Your task to perform on an android device: toggle show notifications on the lock screen Image 0: 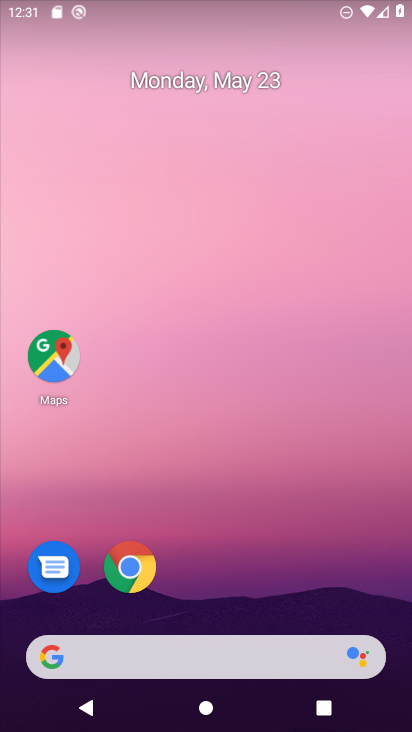
Step 0: drag from (190, 610) to (222, 261)
Your task to perform on an android device: toggle show notifications on the lock screen Image 1: 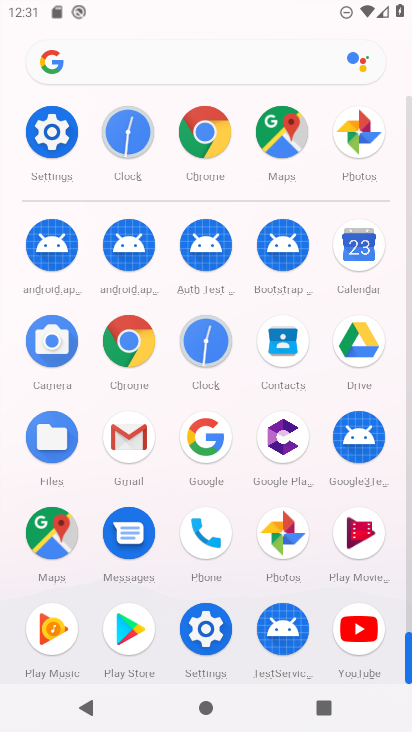
Step 1: click (199, 657)
Your task to perform on an android device: toggle show notifications on the lock screen Image 2: 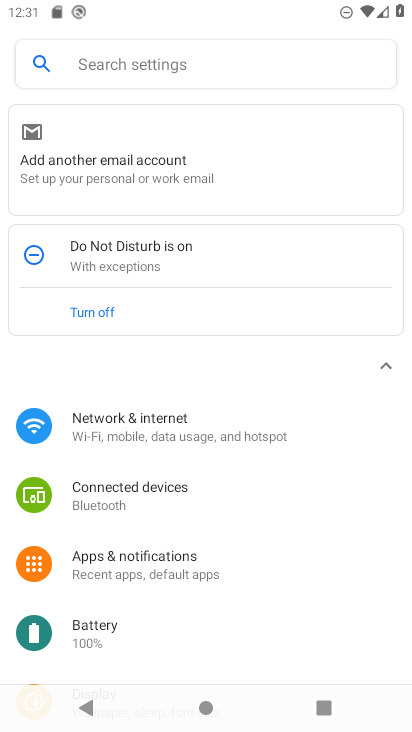
Step 2: click (199, 657)
Your task to perform on an android device: toggle show notifications on the lock screen Image 3: 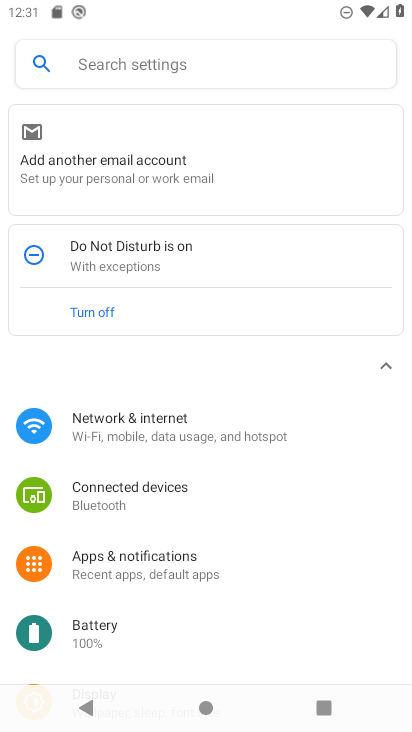
Step 3: click (199, 657)
Your task to perform on an android device: toggle show notifications on the lock screen Image 4: 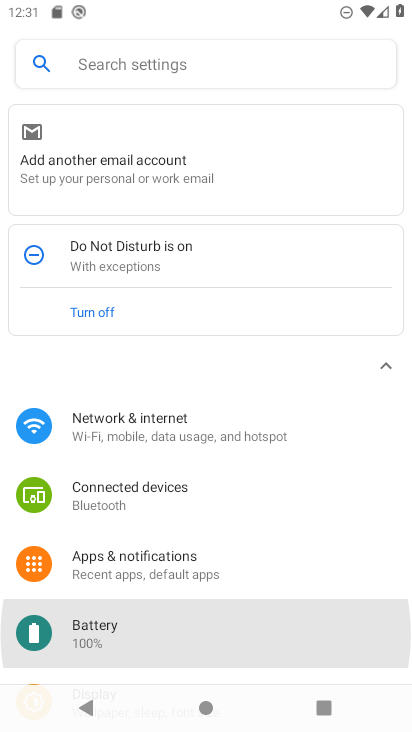
Step 4: click (199, 657)
Your task to perform on an android device: toggle show notifications on the lock screen Image 5: 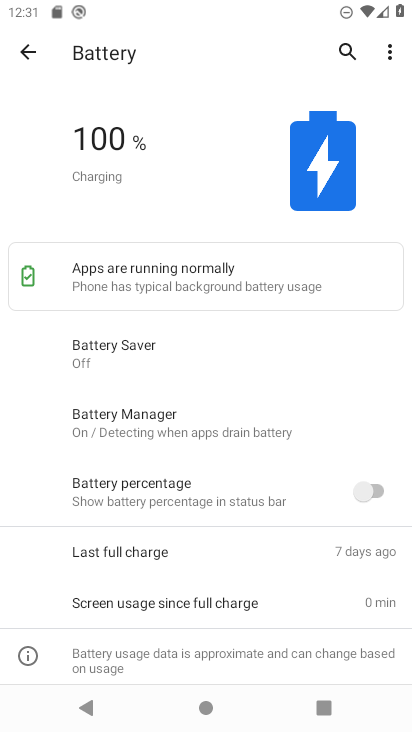
Step 5: drag from (199, 657) to (218, 294)
Your task to perform on an android device: toggle show notifications on the lock screen Image 6: 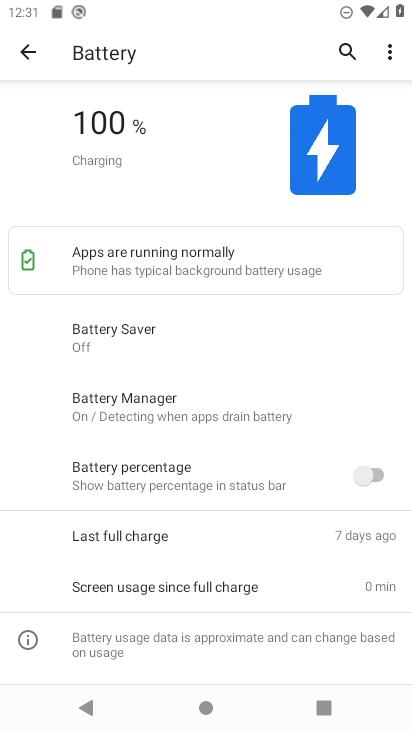
Step 6: click (34, 48)
Your task to perform on an android device: toggle show notifications on the lock screen Image 7: 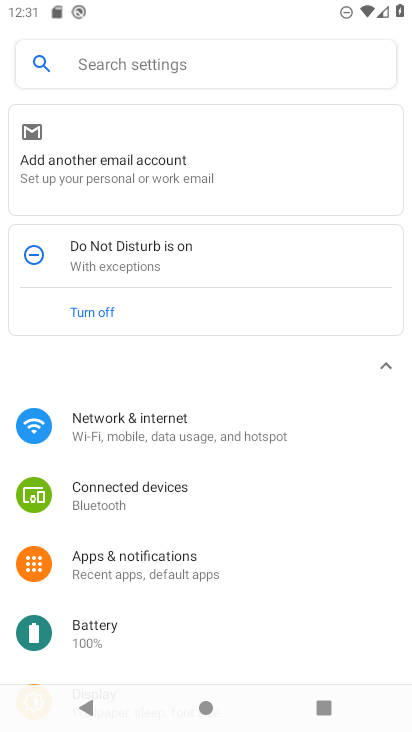
Step 7: click (132, 543)
Your task to perform on an android device: toggle show notifications on the lock screen Image 8: 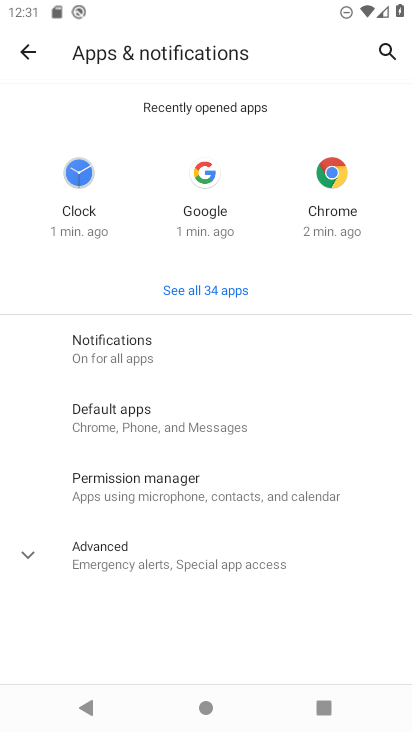
Step 8: click (149, 322)
Your task to perform on an android device: toggle show notifications on the lock screen Image 9: 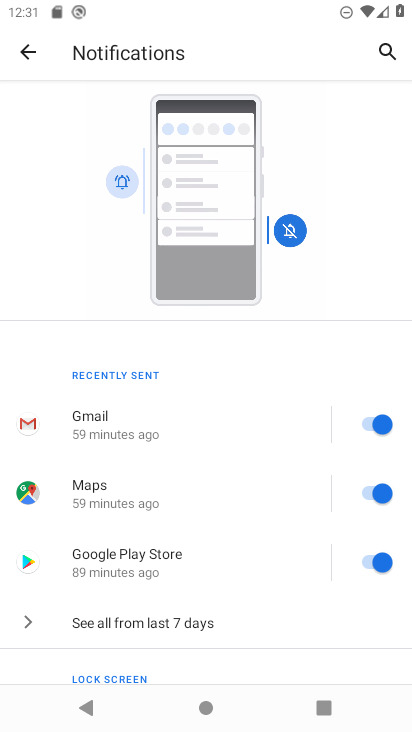
Step 9: drag from (148, 623) to (126, 381)
Your task to perform on an android device: toggle show notifications on the lock screen Image 10: 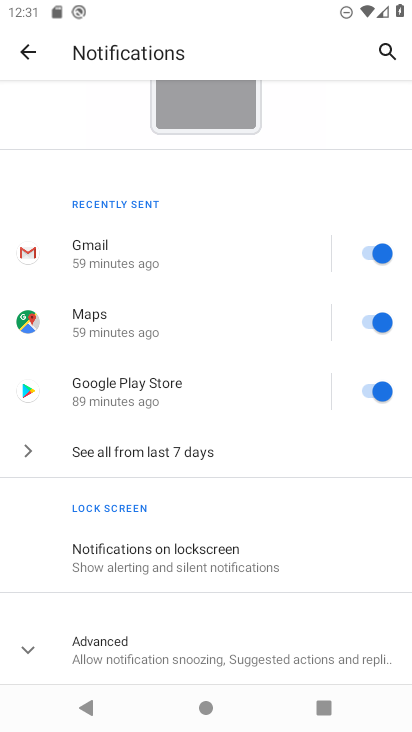
Step 10: click (124, 563)
Your task to perform on an android device: toggle show notifications on the lock screen Image 11: 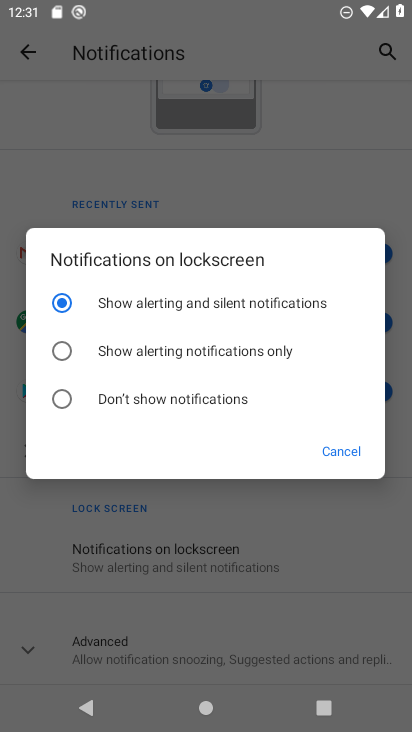
Step 11: task complete